Your task to perform on an android device: Open calendar and show me the third week of next month Image 0: 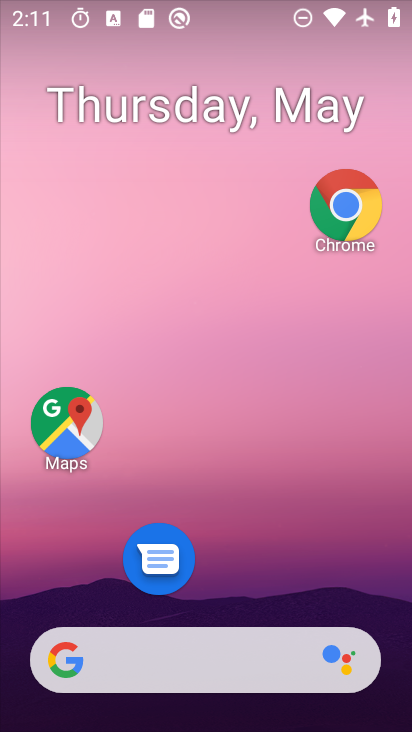
Step 0: drag from (225, 636) to (247, 212)
Your task to perform on an android device: Open calendar and show me the third week of next month Image 1: 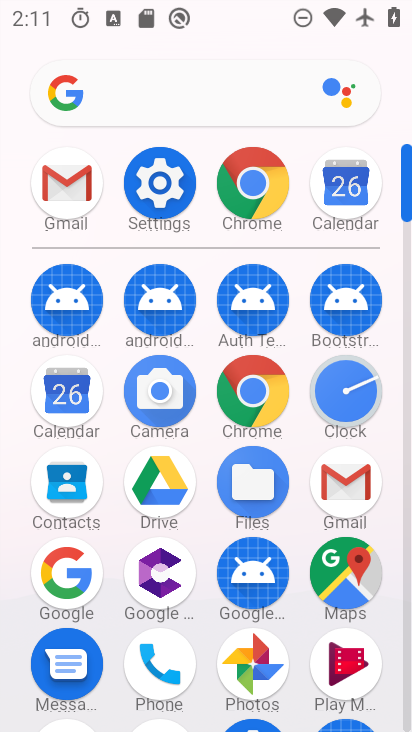
Step 1: click (71, 407)
Your task to perform on an android device: Open calendar and show me the third week of next month Image 2: 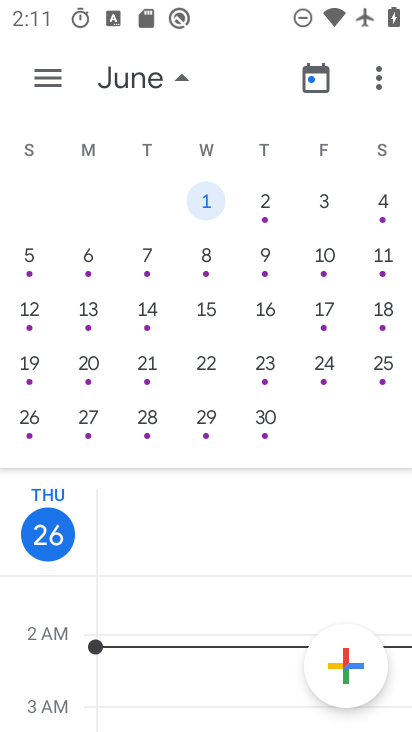
Step 2: click (36, 356)
Your task to perform on an android device: Open calendar and show me the third week of next month Image 3: 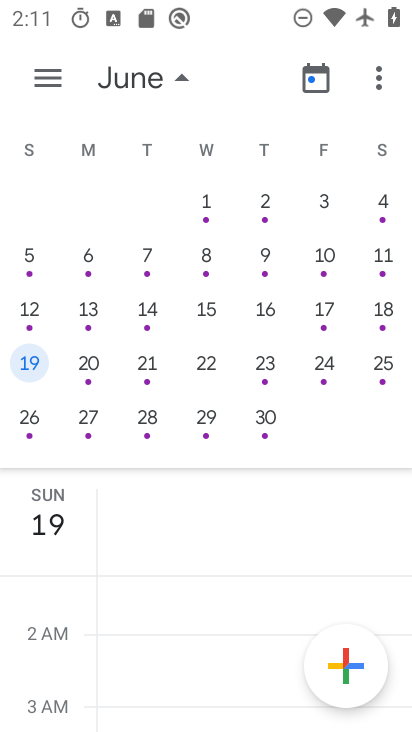
Step 3: task complete